Your task to perform on an android device: Open Google Maps Image 0: 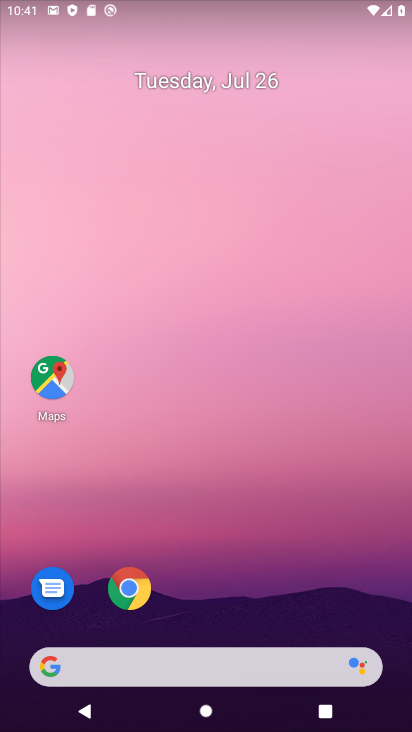
Step 0: click (57, 386)
Your task to perform on an android device: Open Google Maps Image 1: 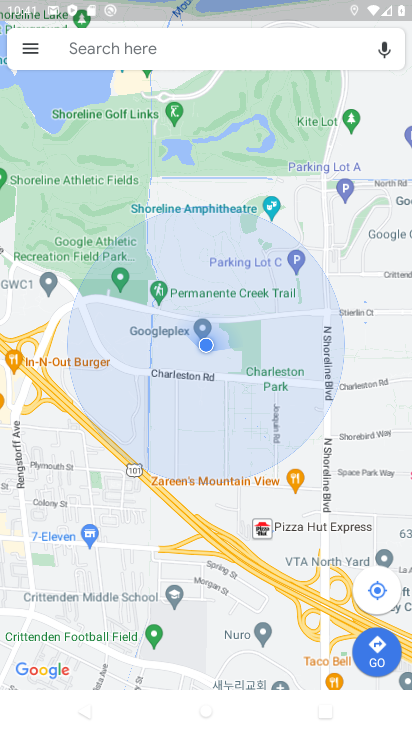
Step 1: task complete